Your task to perform on an android device: What's the weather? Image 0: 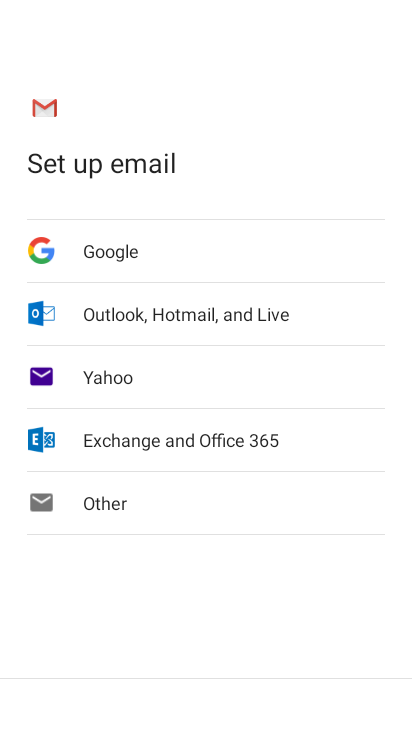
Step 0: press home button
Your task to perform on an android device: What's the weather? Image 1: 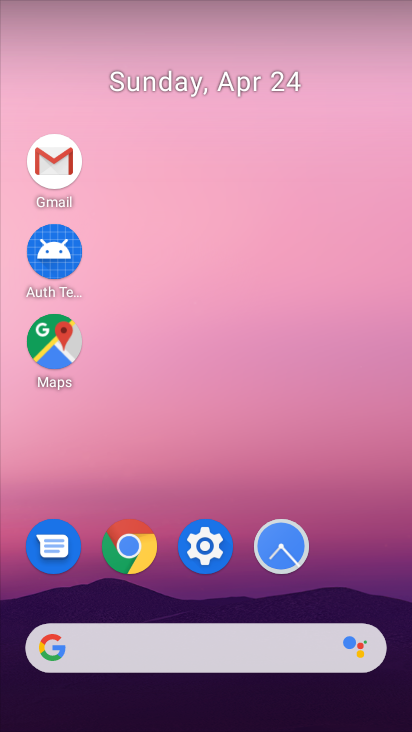
Step 1: click (164, 640)
Your task to perform on an android device: What's the weather? Image 2: 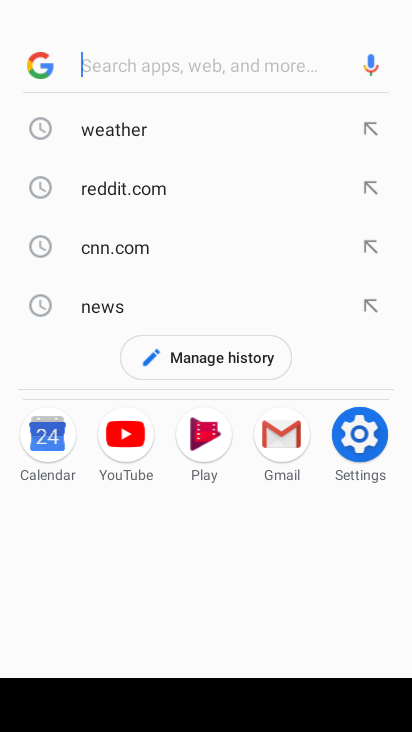
Step 2: click (115, 128)
Your task to perform on an android device: What's the weather? Image 3: 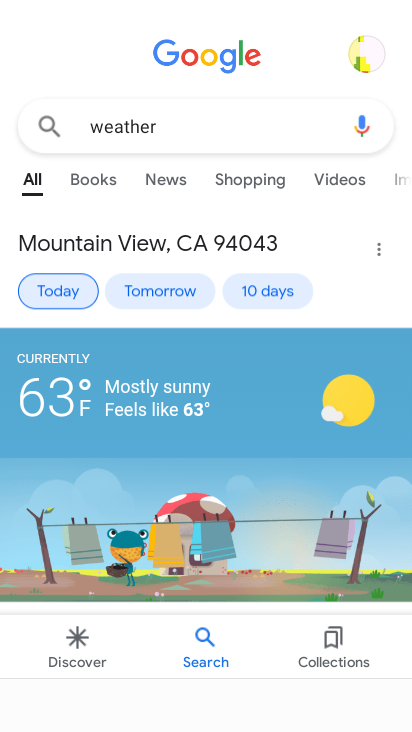
Step 3: task complete